Your task to perform on an android device: Open calendar and show me the second week of next month Image 0: 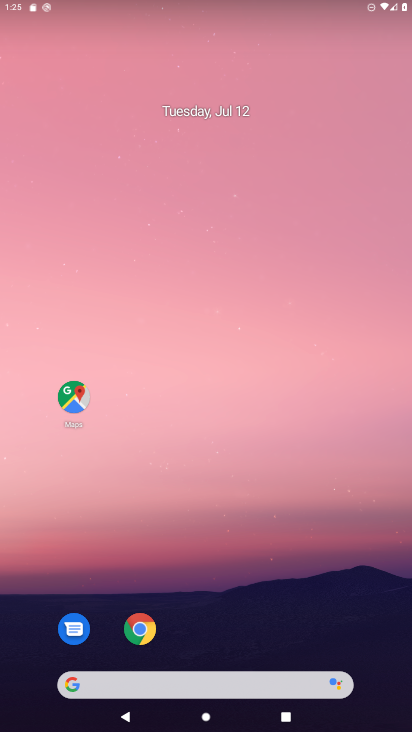
Step 0: drag from (230, 538) to (250, 25)
Your task to perform on an android device: Open calendar and show me the second week of next month Image 1: 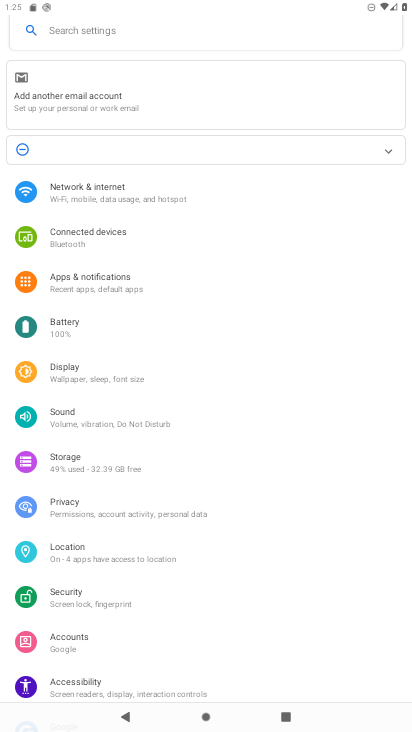
Step 1: press home button
Your task to perform on an android device: Open calendar and show me the second week of next month Image 2: 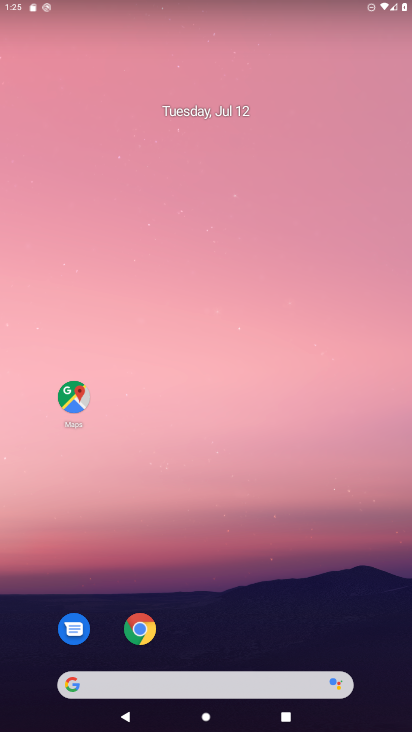
Step 2: drag from (220, 652) to (236, 57)
Your task to perform on an android device: Open calendar and show me the second week of next month Image 3: 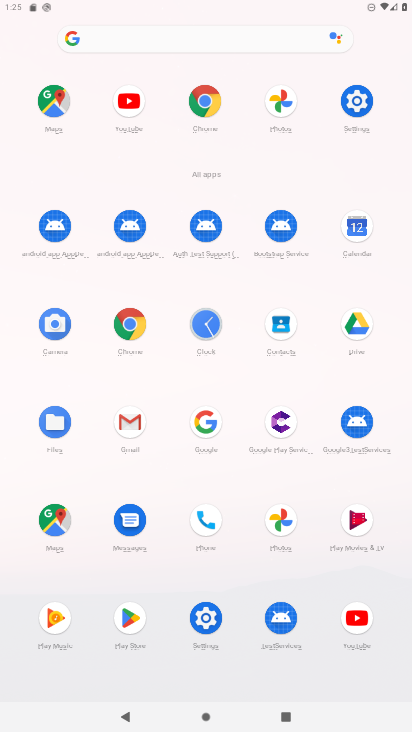
Step 3: click (351, 222)
Your task to perform on an android device: Open calendar and show me the second week of next month Image 4: 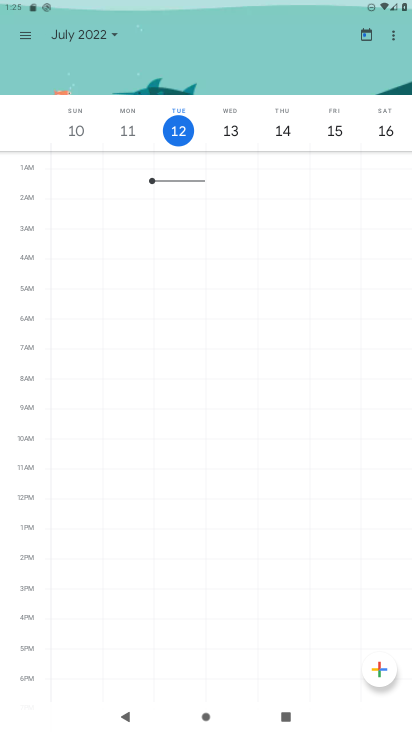
Step 4: click (19, 36)
Your task to perform on an android device: Open calendar and show me the second week of next month Image 5: 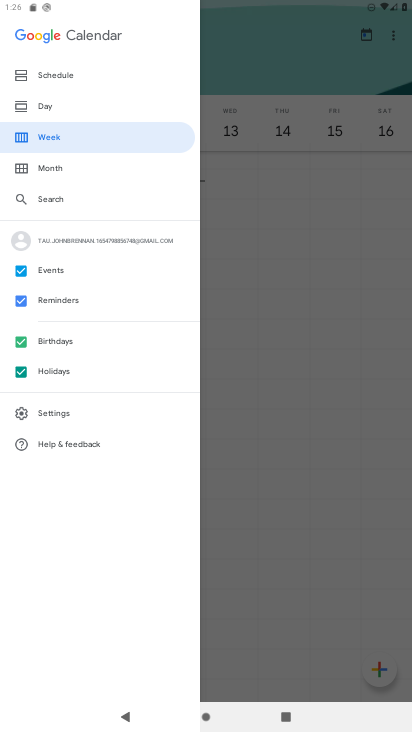
Step 5: click (43, 134)
Your task to perform on an android device: Open calendar and show me the second week of next month Image 6: 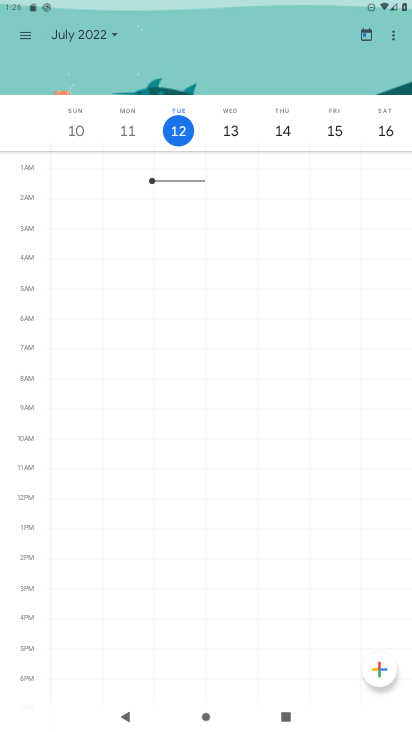
Step 6: drag from (381, 129) to (102, 125)
Your task to perform on an android device: Open calendar and show me the second week of next month Image 7: 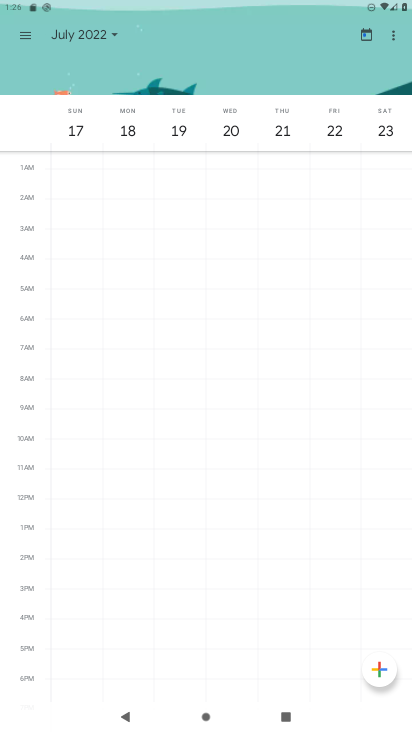
Step 7: click (76, 130)
Your task to perform on an android device: Open calendar and show me the second week of next month Image 8: 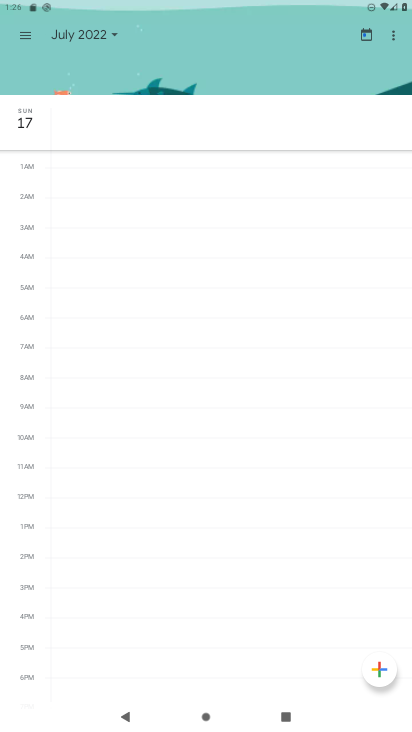
Step 8: click (29, 118)
Your task to perform on an android device: Open calendar and show me the second week of next month Image 9: 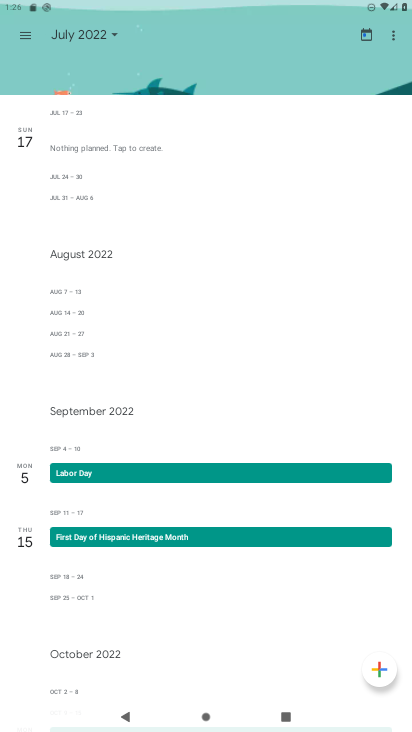
Step 9: task complete